Your task to perform on an android device: toggle javascript in the chrome app Image 0: 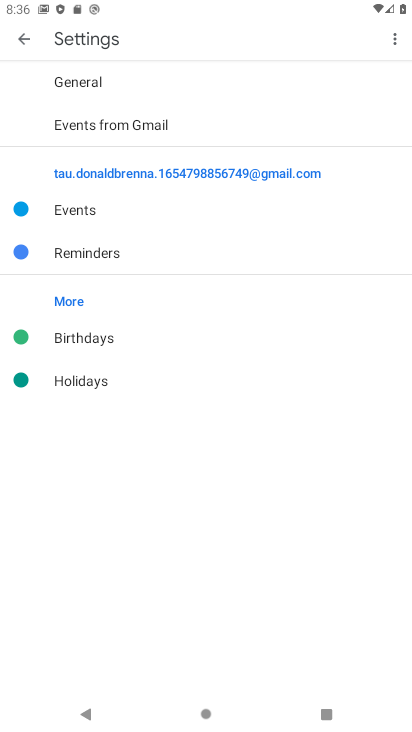
Step 0: press home button
Your task to perform on an android device: toggle javascript in the chrome app Image 1: 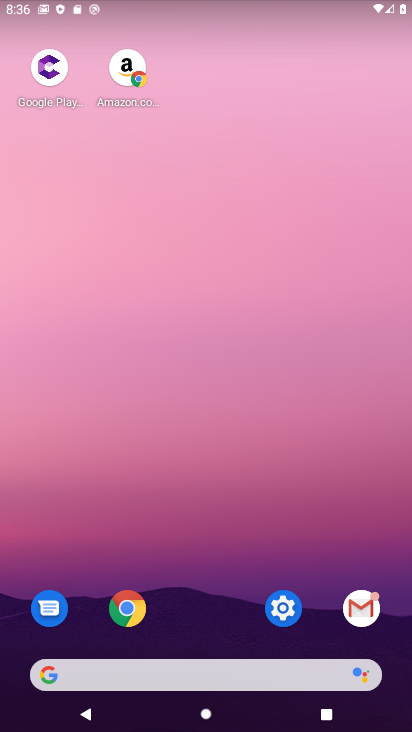
Step 1: click (122, 617)
Your task to perform on an android device: toggle javascript in the chrome app Image 2: 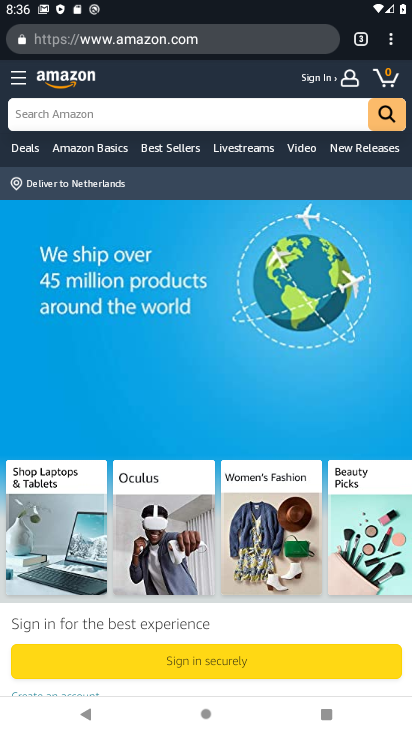
Step 2: click (392, 36)
Your task to perform on an android device: toggle javascript in the chrome app Image 3: 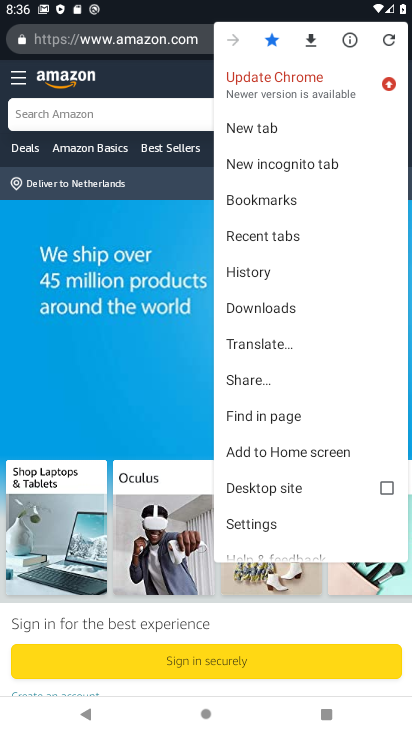
Step 3: click (249, 526)
Your task to perform on an android device: toggle javascript in the chrome app Image 4: 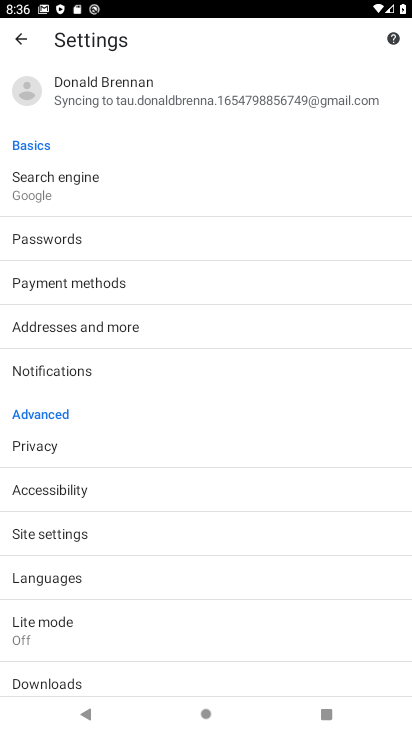
Step 4: click (66, 536)
Your task to perform on an android device: toggle javascript in the chrome app Image 5: 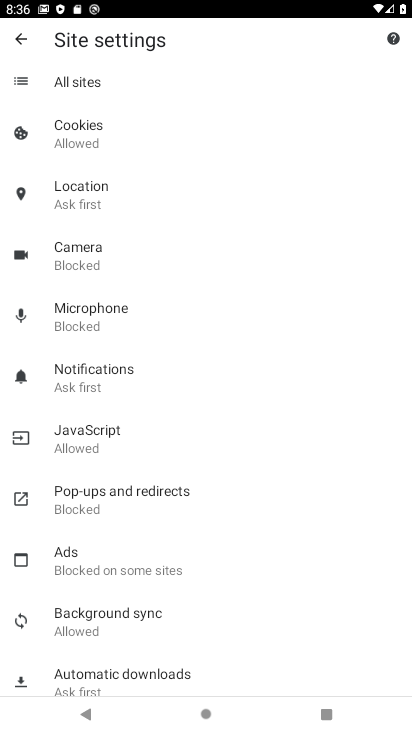
Step 5: click (112, 439)
Your task to perform on an android device: toggle javascript in the chrome app Image 6: 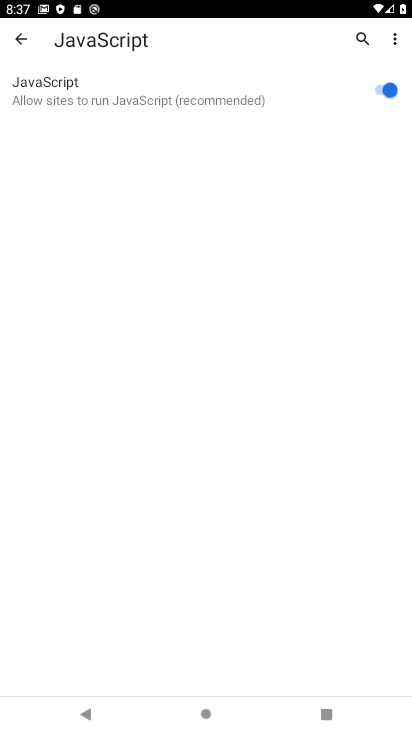
Step 6: task complete